Your task to perform on an android device: turn vacation reply on in the gmail app Image 0: 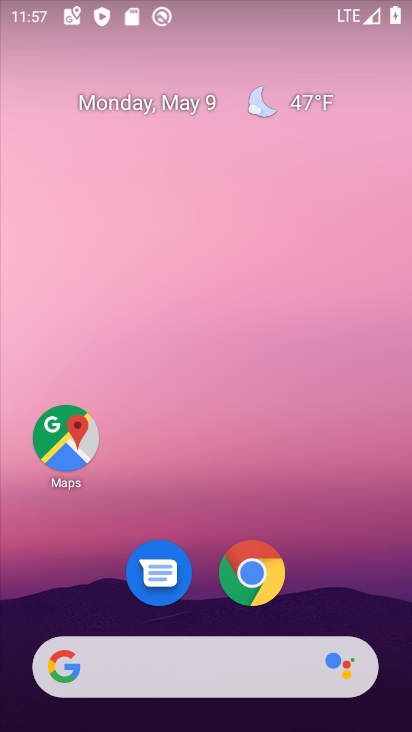
Step 0: drag from (212, 628) to (211, 195)
Your task to perform on an android device: turn vacation reply on in the gmail app Image 1: 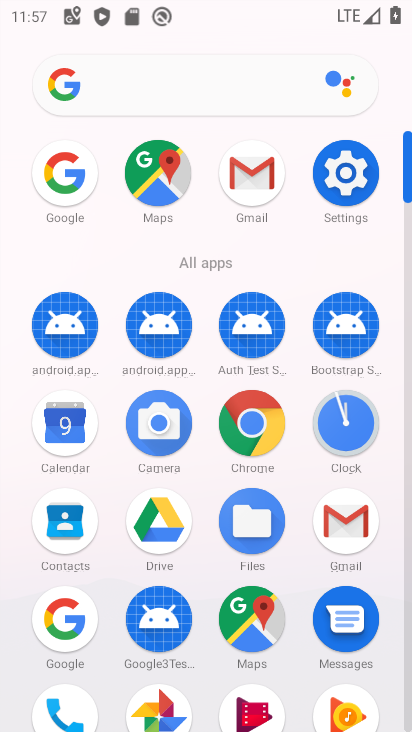
Step 1: drag from (216, 691) to (188, 297)
Your task to perform on an android device: turn vacation reply on in the gmail app Image 2: 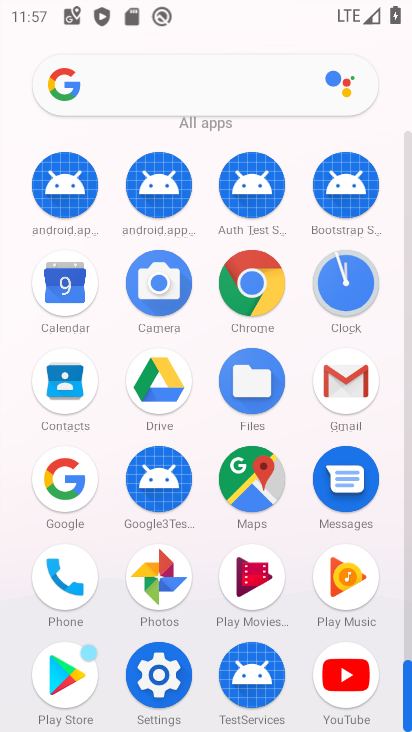
Step 2: click (358, 371)
Your task to perform on an android device: turn vacation reply on in the gmail app Image 3: 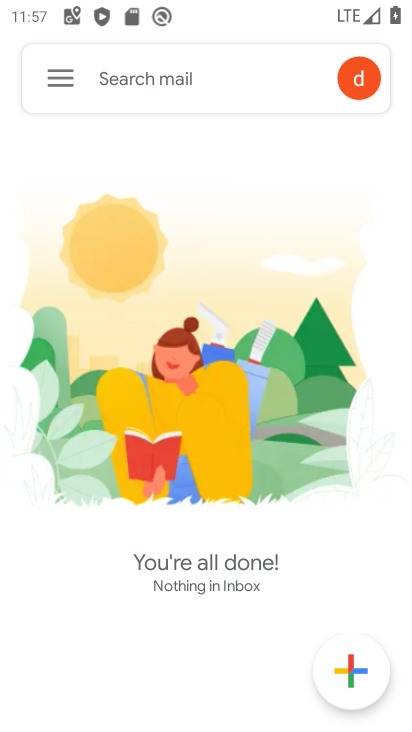
Step 3: drag from (201, 646) to (198, 403)
Your task to perform on an android device: turn vacation reply on in the gmail app Image 4: 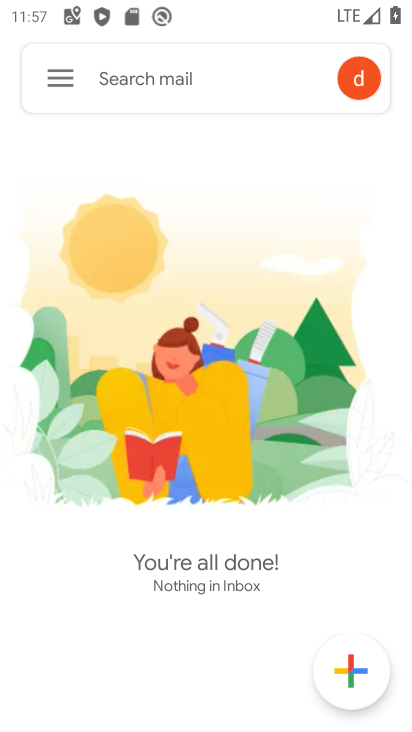
Step 4: click (45, 68)
Your task to perform on an android device: turn vacation reply on in the gmail app Image 5: 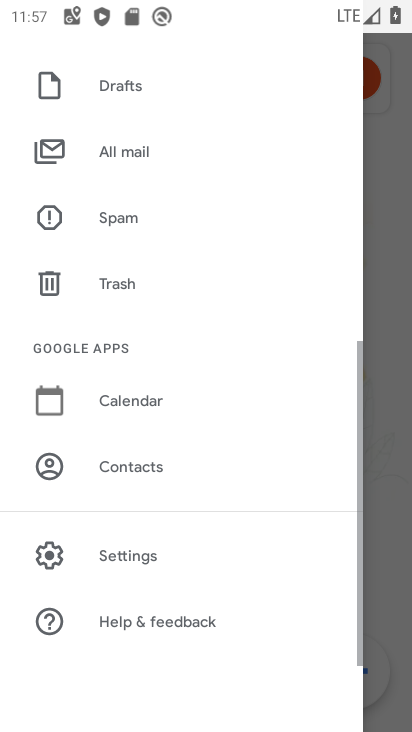
Step 5: drag from (177, 555) to (154, 284)
Your task to perform on an android device: turn vacation reply on in the gmail app Image 6: 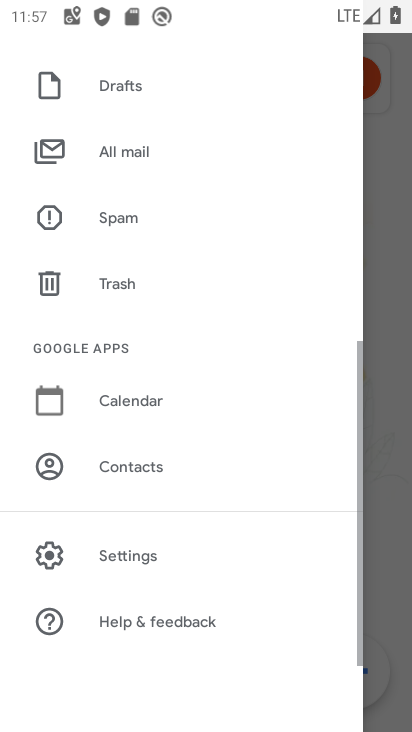
Step 6: click (128, 565)
Your task to perform on an android device: turn vacation reply on in the gmail app Image 7: 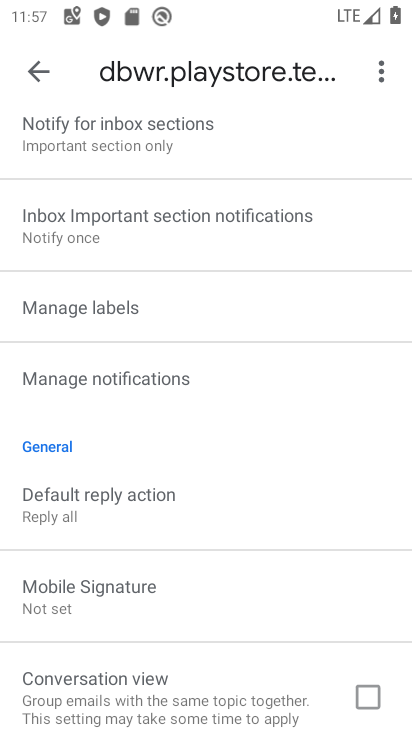
Step 7: drag from (178, 631) to (330, 133)
Your task to perform on an android device: turn vacation reply on in the gmail app Image 8: 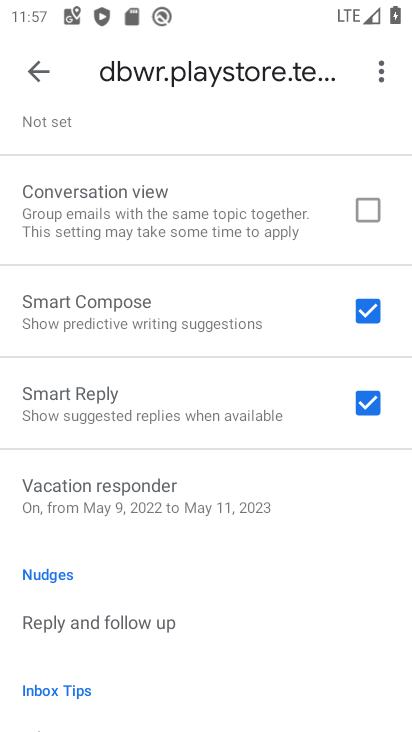
Step 8: drag from (210, 664) to (234, 354)
Your task to perform on an android device: turn vacation reply on in the gmail app Image 9: 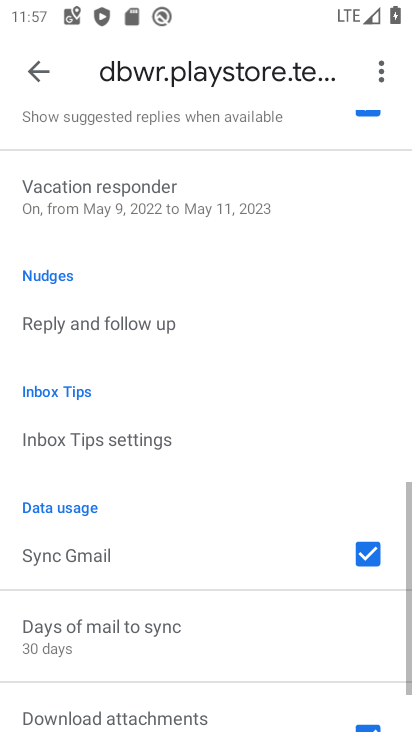
Step 9: click (169, 192)
Your task to perform on an android device: turn vacation reply on in the gmail app Image 10: 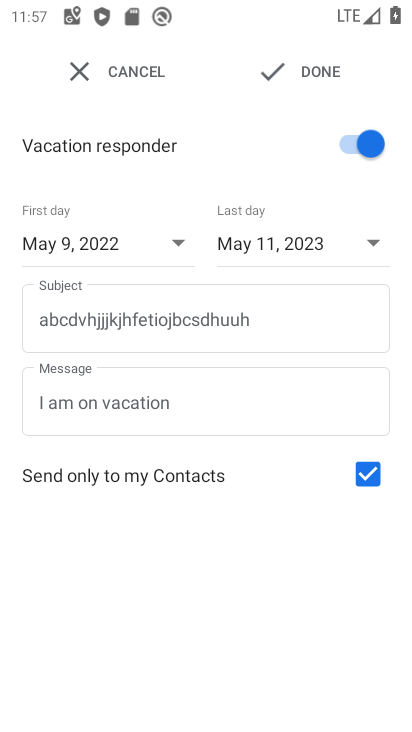
Step 10: click (295, 65)
Your task to perform on an android device: turn vacation reply on in the gmail app Image 11: 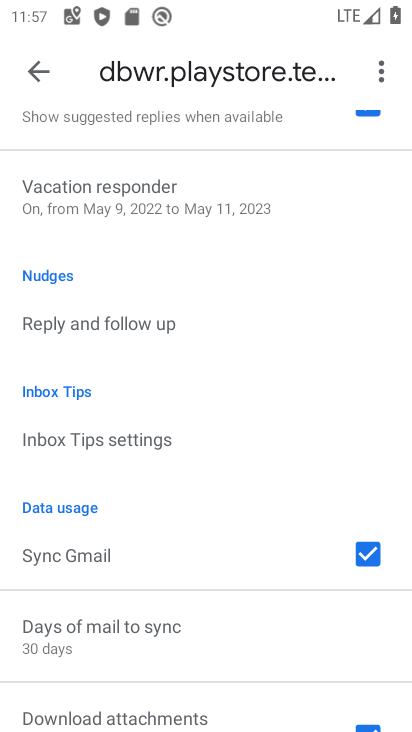
Step 11: task complete